Your task to perform on an android device: What's on my calendar tomorrow? Image 0: 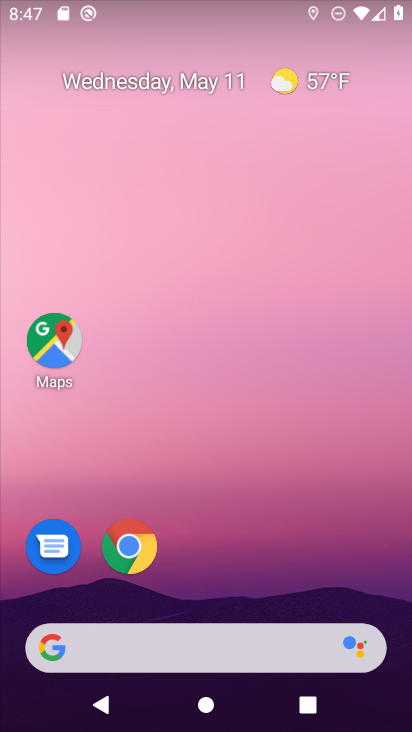
Step 0: drag from (237, 580) to (202, 268)
Your task to perform on an android device: What's on my calendar tomorrow? Image 1: 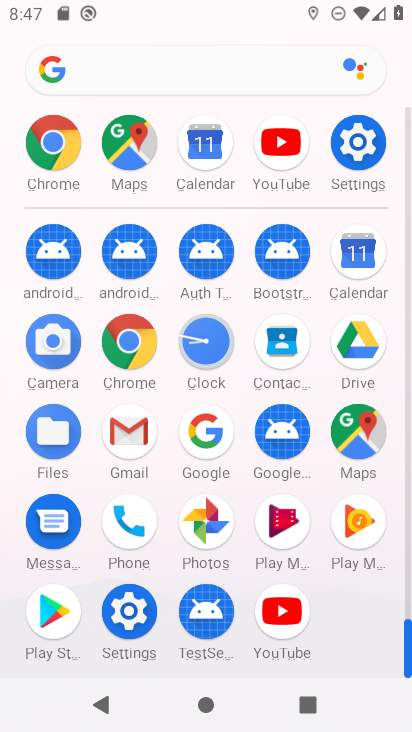
Step 1: click (342, 266)
Your task to perform on an android device: What's on my calendar tomorrow? Image 2: 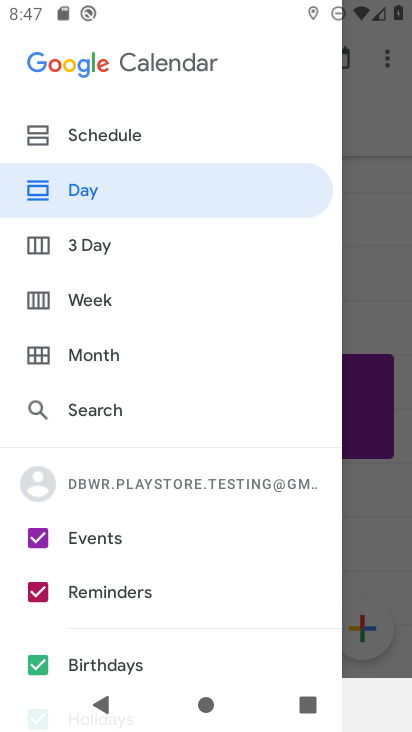
Step 2: click (352, 199)
Your task to perform on an android device: What's on my calendar tomorrow? Image 3: 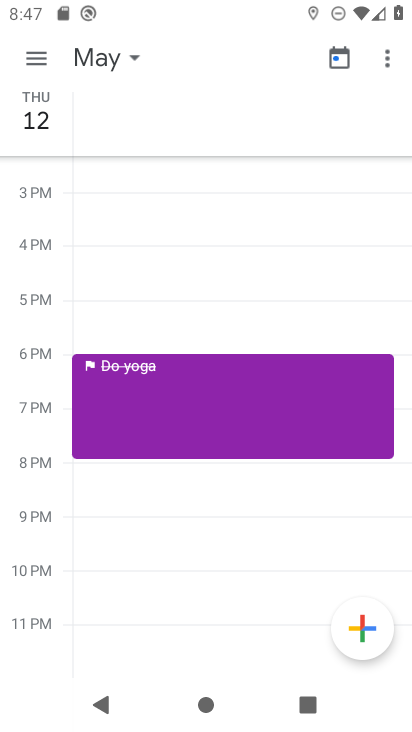
Step 3: click (105, 51)
Your task to perform on an android device: What's on my calendar tomorrow? Image 4: 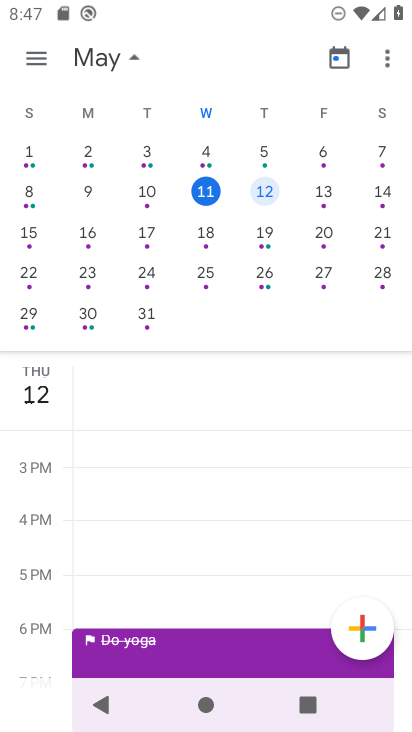
Step 4: click (276, 190)
Your task to perform on an android device: What's on my calendar tomorrow? Image 5: 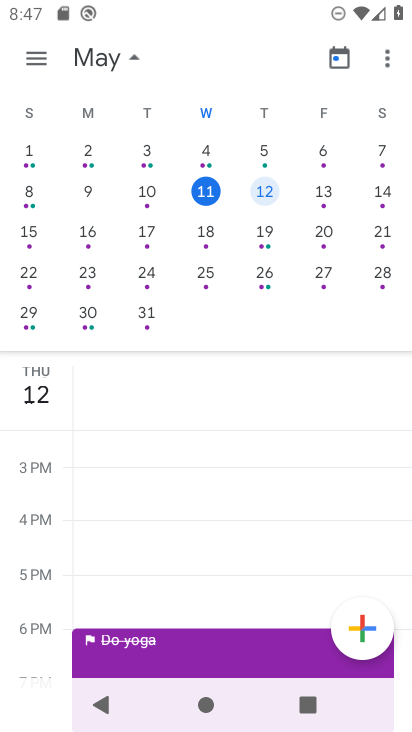
Step 5: click (259, 190)
Your task to perform on an android device: What's on my calendar tomorrow? Image 6: 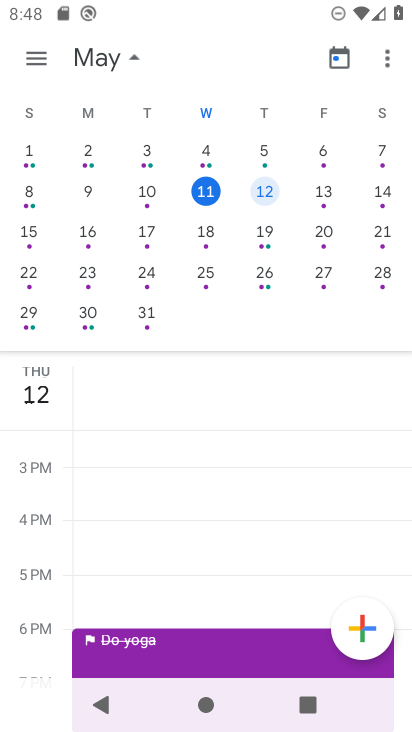
Step 6: task complete